Your task to perform on an android device: check google app version Image 0: 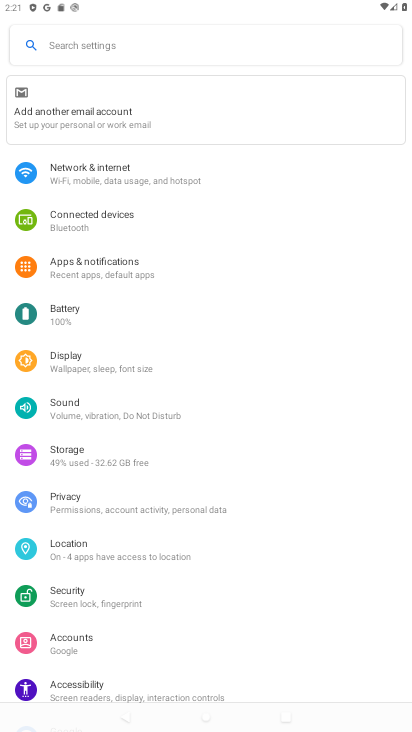
Step 0: press home button
Your task to perform on an android device: check google app version Image 1: 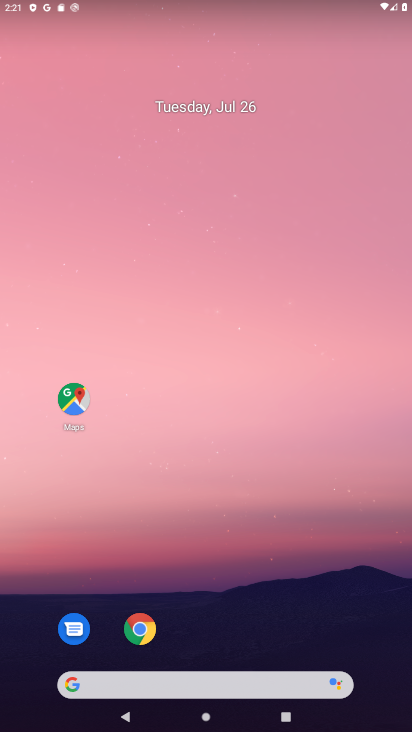
Step 1: drag from (244, 619) to (254, 57)
Your task to perform on an android device: check google app version Image 2: 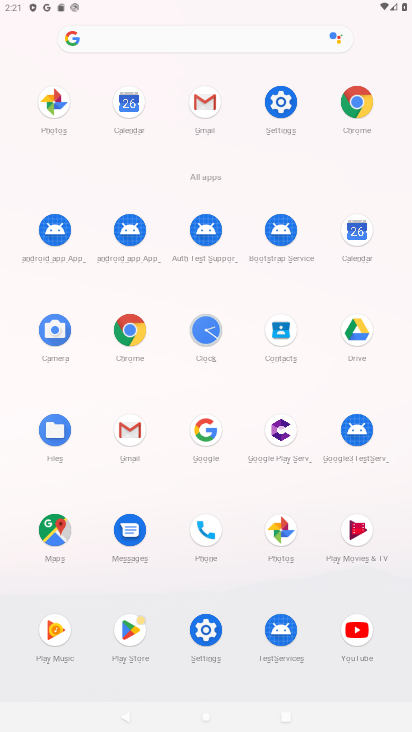
Step 2: click (356, 112)
Your task to perform on an android device: check google app version Image 3: 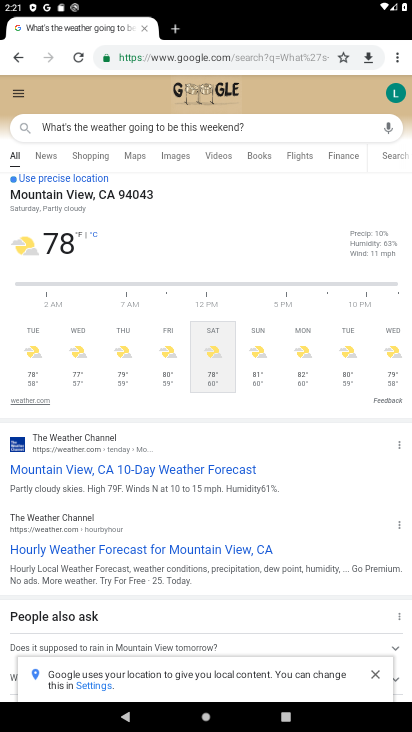
Step 3: click (398, 55)
Your task to perform on an android device: check google app version Image 4: 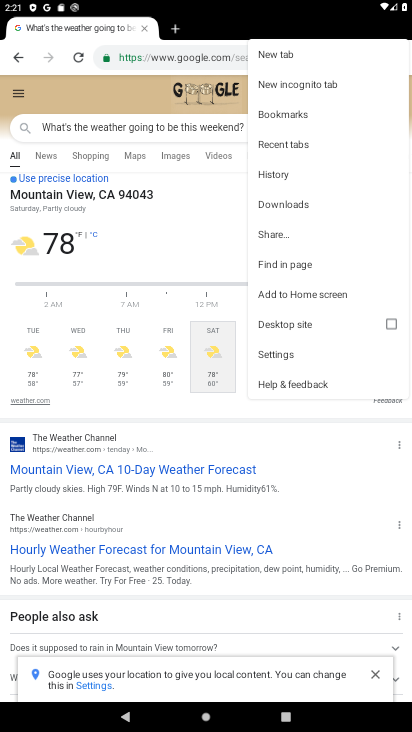
Step 4: click (338, 376)
Your task to perform on an android device: check google app version Image 5: 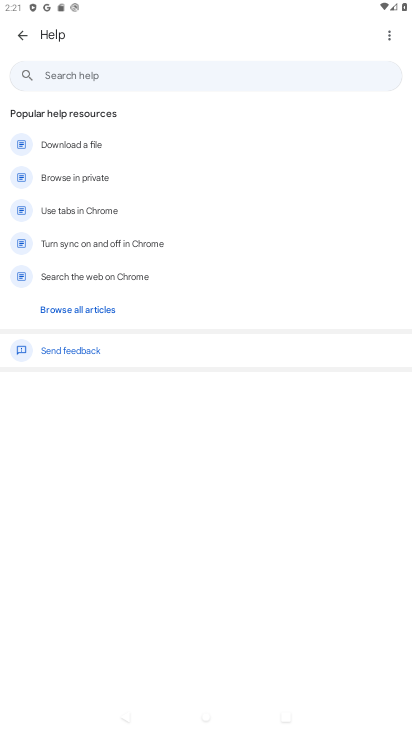
Step 5: click (395, 29)
Your task to perform on an android device: check google app version Image 6: 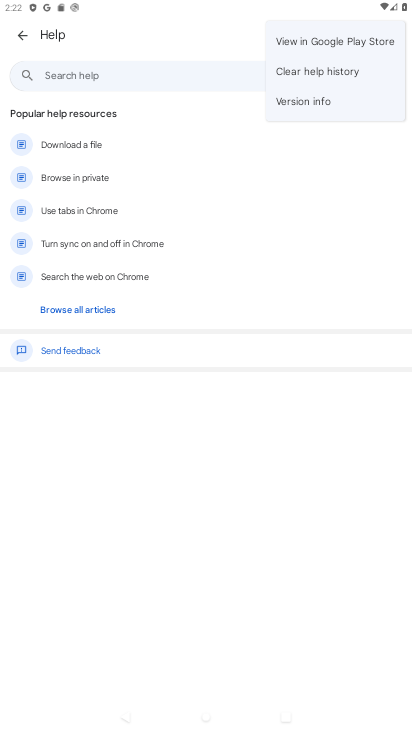
Step 6: click (322, 97)
Your task to perform on an android device: check google app version Image 7: 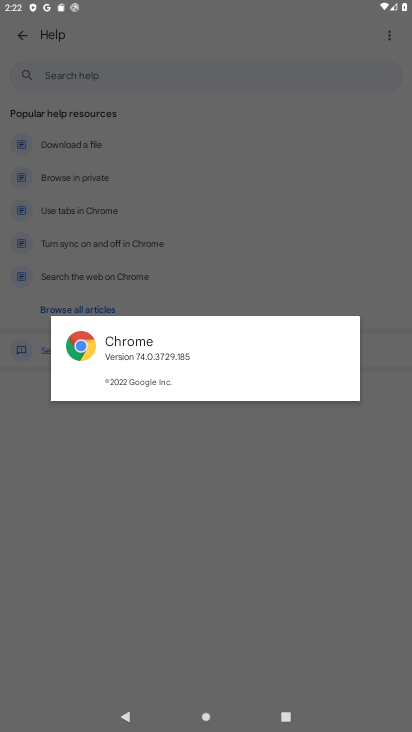
Step 7: task complete